Your task to perform on an android device: Go to Reddit.com Image 0: 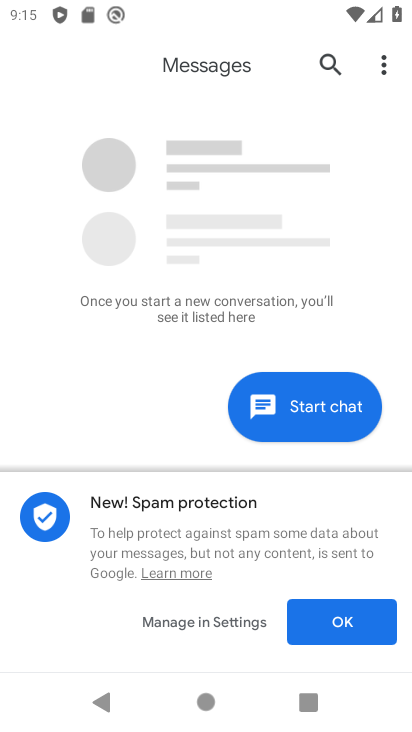
Step 0: press home button
Your task to perform on an android device: Go to Reddit.com Image 1: 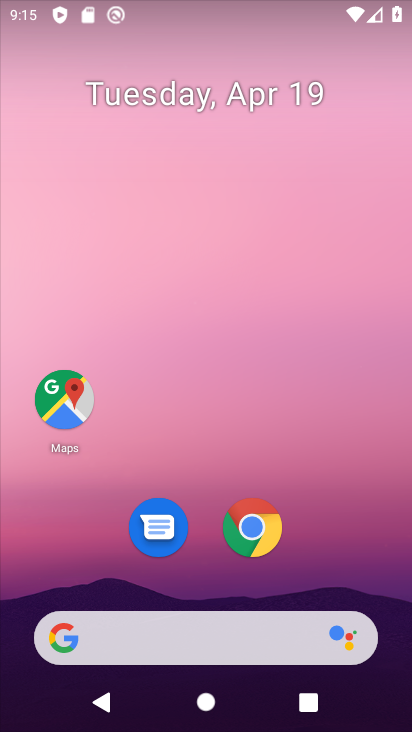
Step 1: click (264, 540)
Your task to perform on an android device: Go to Reddit.com Image 2: 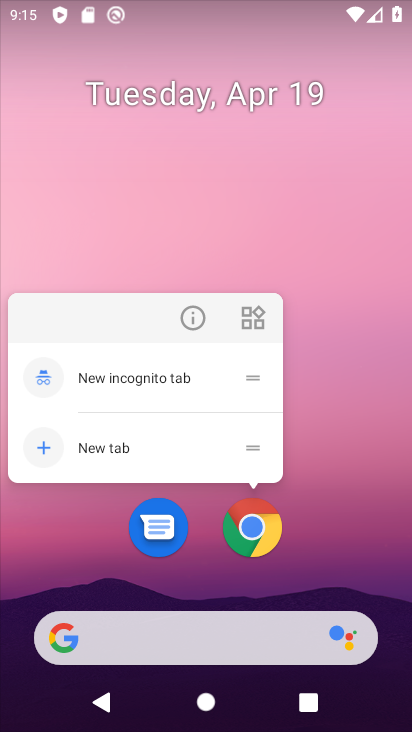
Step 2: click (328, 548)
Your task to perform on an android device: Go to Reddit.com Image 3: 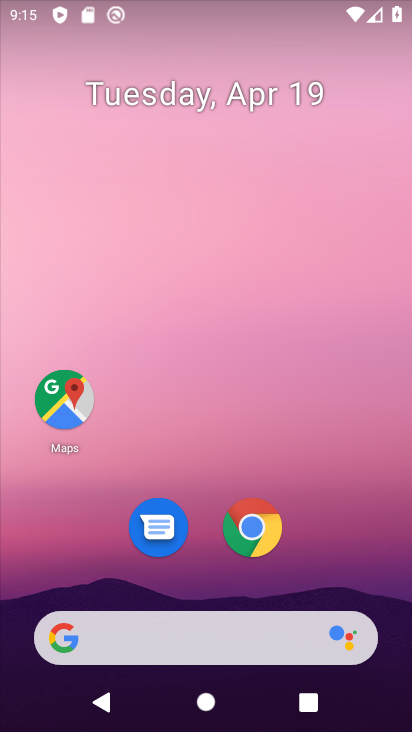
Step 3: drag from (252, 662) to (224, 107)
Your task to perform on an android device: Go to Reddit.com Image 4: 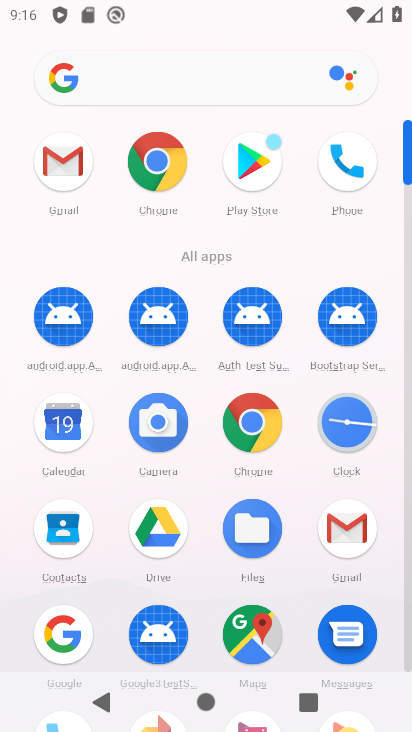
Step 4: click (235, 414)
Your task to perform on an android device: Go to Reddit.com Image 5: 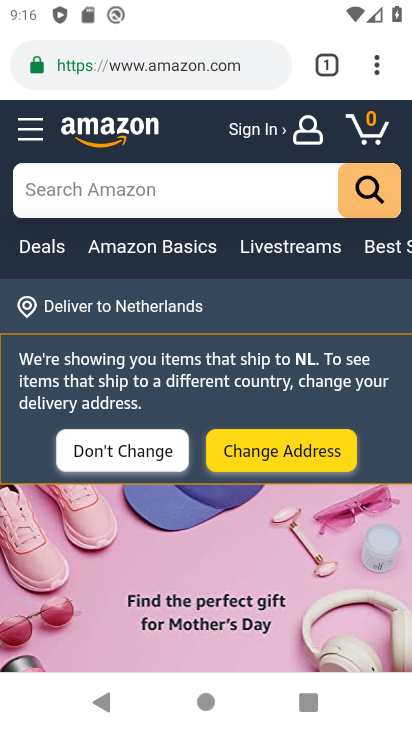
Step 5: click (327, 71)
Your task to perform on an android device: Go to Reddit.com Image 6: 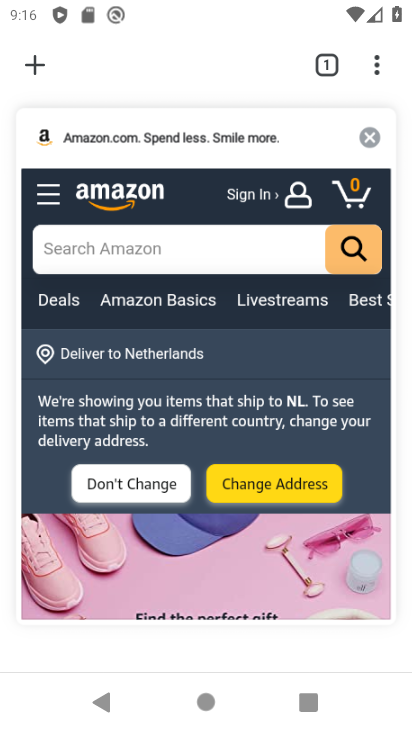
Step 6: click (30, 64)
Your task to perform on an android device: Go to Reddit.com Image 7: 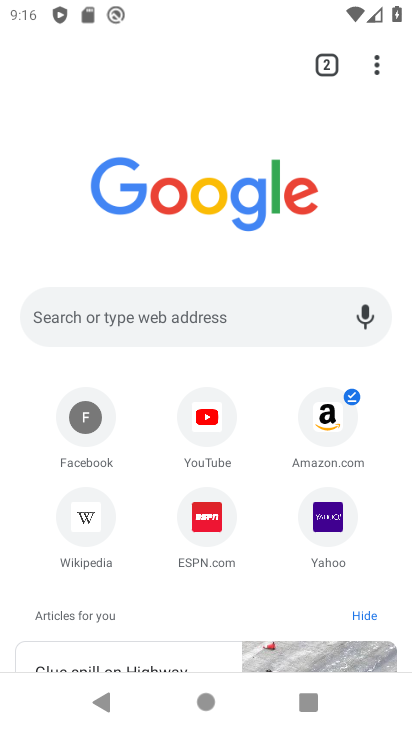
Step 7: click (197, 305)
Your task to perform on an android device: Go to Reddit.com Image 8: 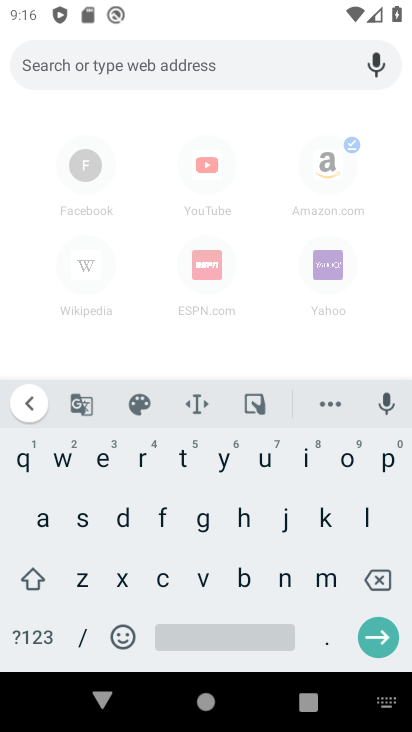
Step 8: click (140, 464)
Your task to perform on an android device: Go to Reddit.com Image 9: 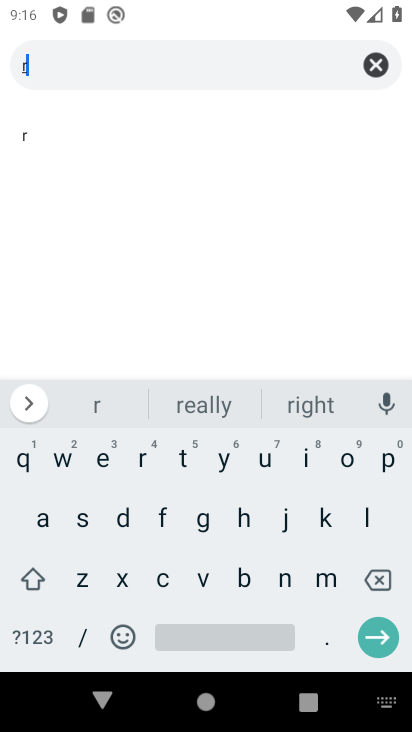
Step 9: click (103, 460)
Your task to perform on an android device: Go to Reddit.com Image 10: 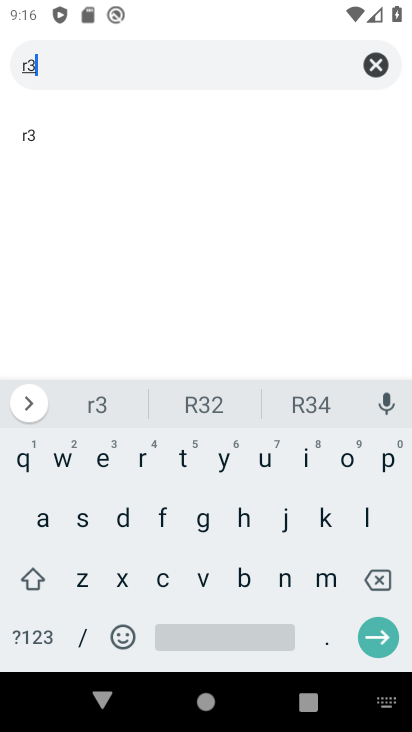
Step 10: click (384, 578)
Your task to perform on an android device: Go to Reddit.com Image 11: 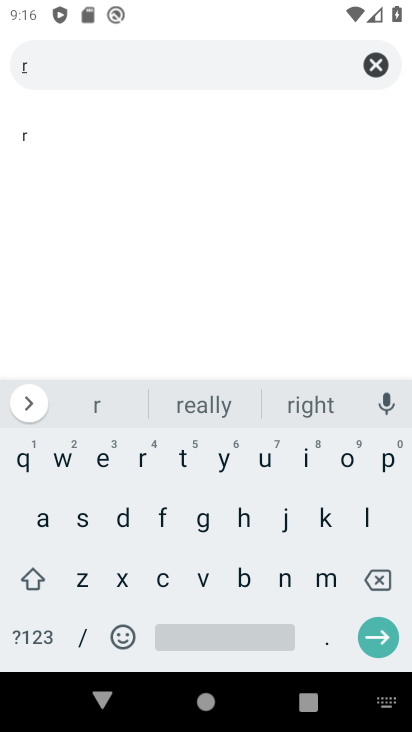
Step 11: click (106, 461)
Your task to perform on an android device: Go to Reddit.com Image 12: 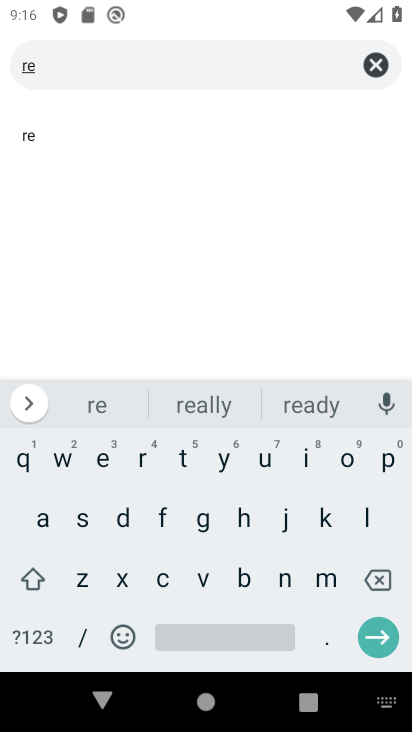
Step 12: click (120, 522)
Your task to perform on an android device: Go to Reddit.com Image 13: 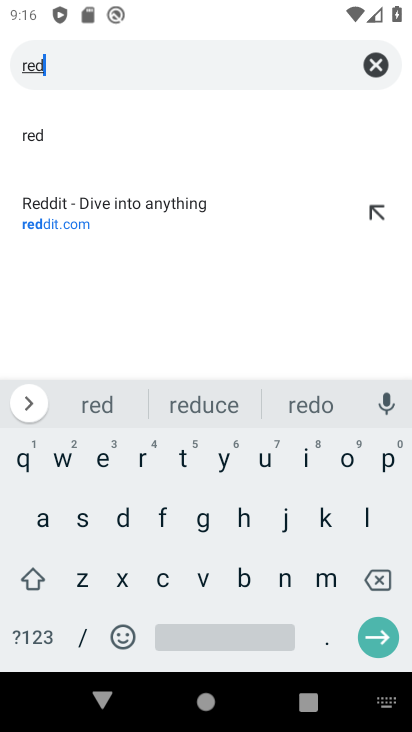
Step 13: click (106, 208)
Your task to perform on an android device: Go to Reddit.com Image 14: 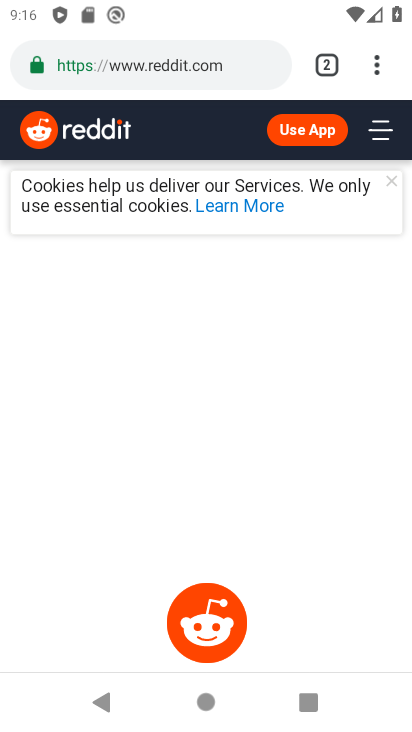
Step 14: task complete